Your task to perform on an android device: toggle sleep mode Image 0: 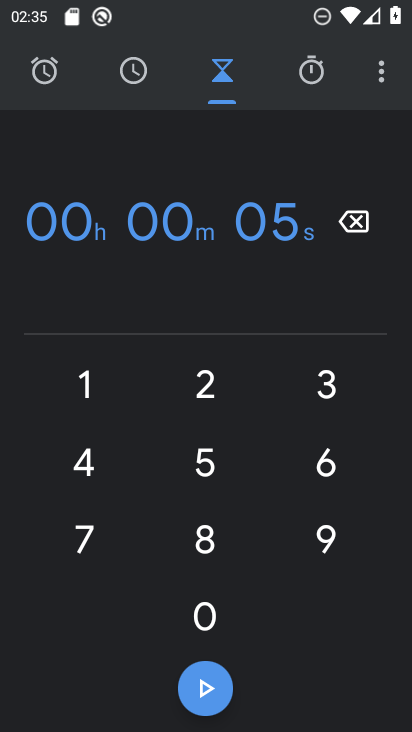
Step 0: press home button
Your task to perform on an android device: toggle sleep mode Image 1: 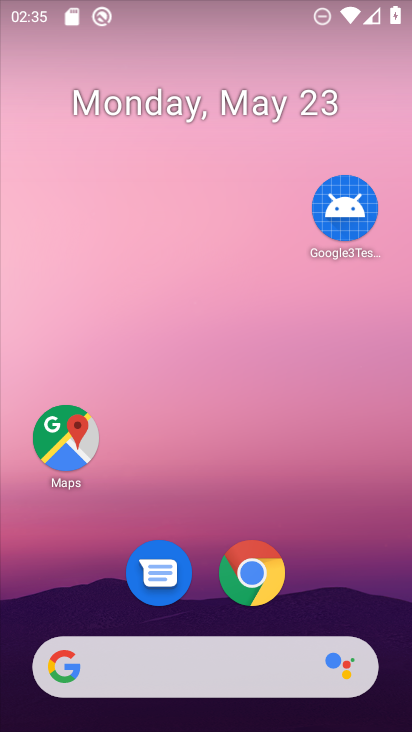
Step 1: click (273, 84)
Your task to perform on an android device: toggle sleep mode Image 2: 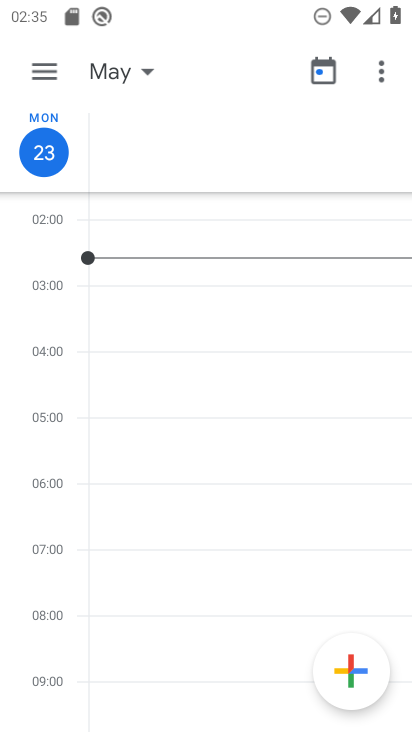
Step 2: press home button
Your task to perform on an android device: toggle sleep mode Image 3: 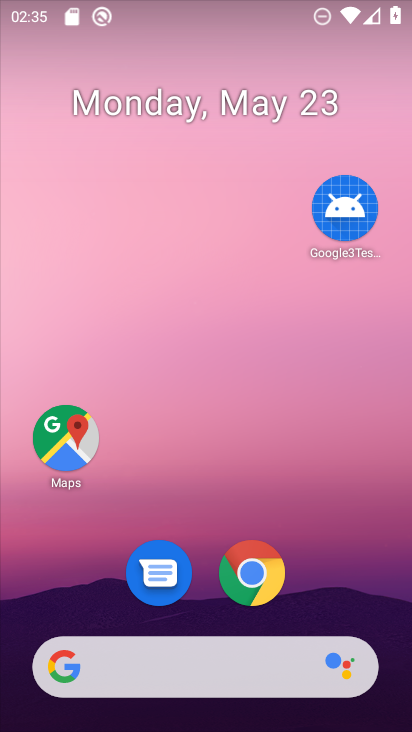
Step 3: drag from (335, 555) to (339, 189)
Your task to perform on an android device: toggle sleep mode Image 4: 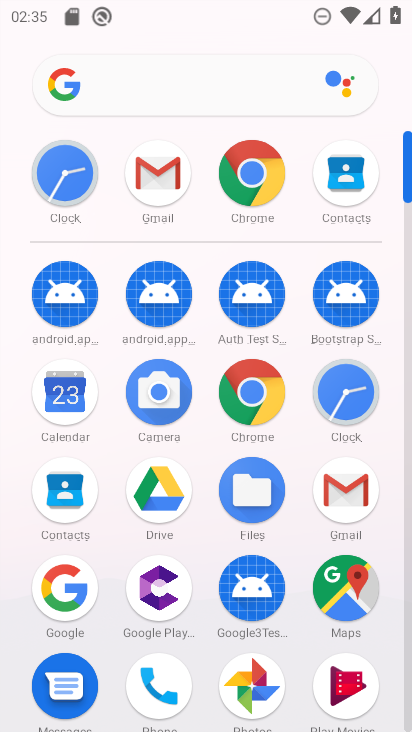
Step 4: drag from (298, 520) to (349, 76)
Your task to perform on an android device: toggle sleep mode Image 5: 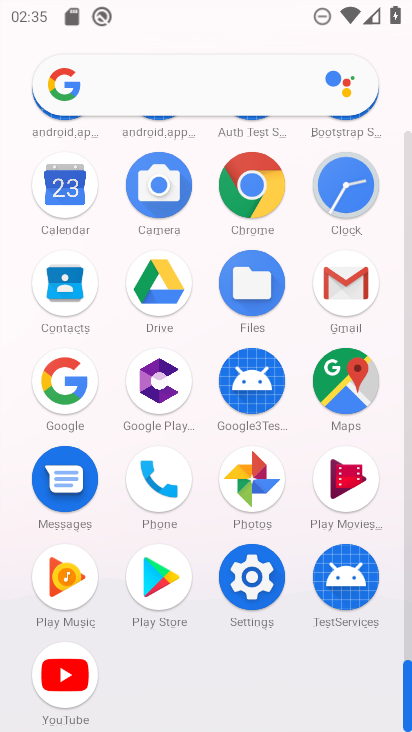
Step 5: click (254, 576)
Your task to perform on an android device: toggle sleep mode Image 6: 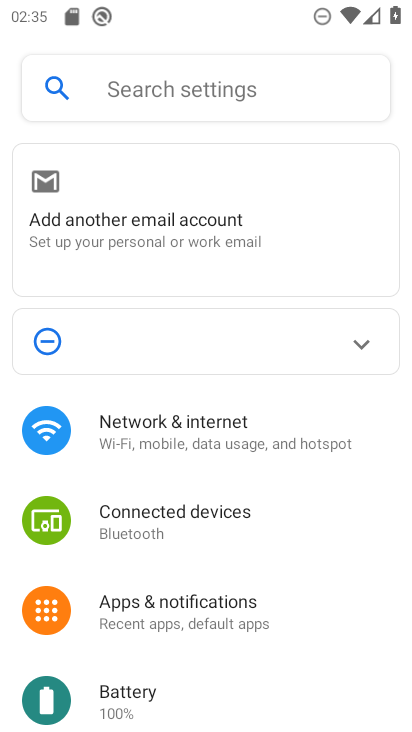
Step 6: drag from (283, 602) to (320, 105)
Your task to perform on an android device: toggle sleep mode Image 7: 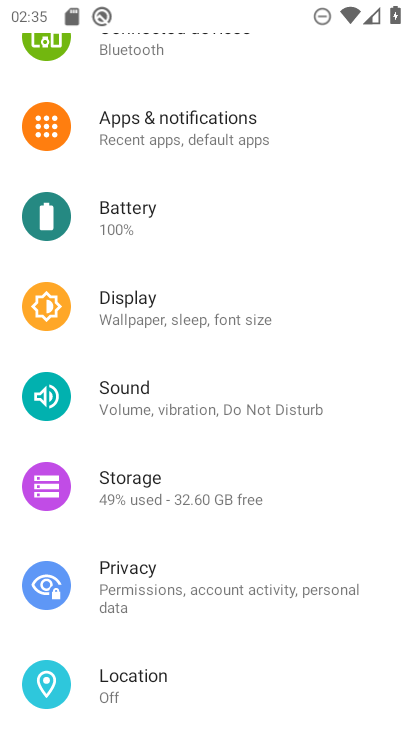
Step 7: click (181, 304)
Your task to perform on an android device: toggle sleep mode Image 8: 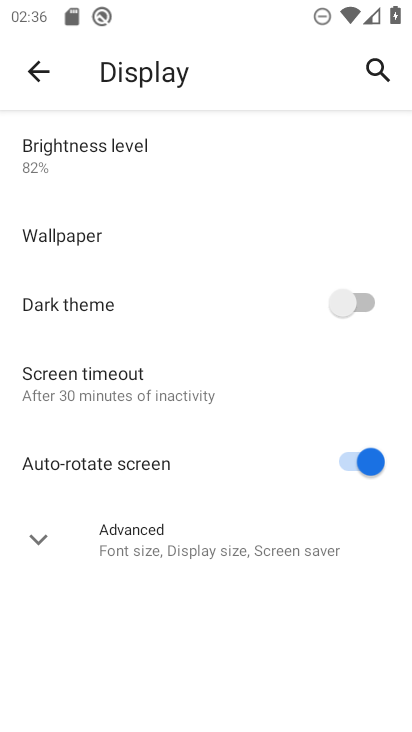
Step 8: click (203, 374)
Your task to perform on an android device: toggle sleep mode Image 9: 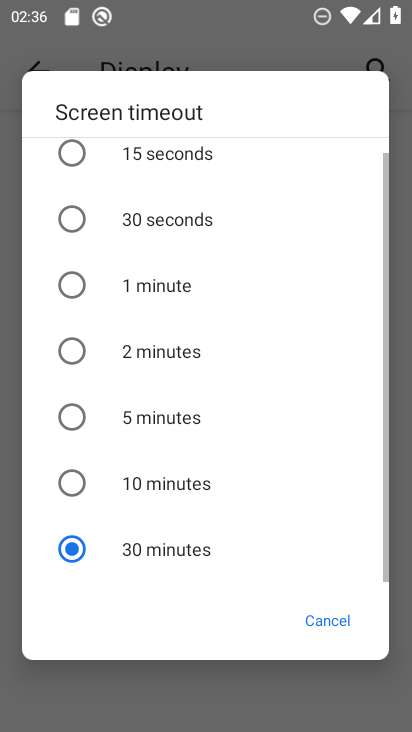
Step 9: click (156, 491)
Your task to perform on an android device: toggle sleep mode Image 10: 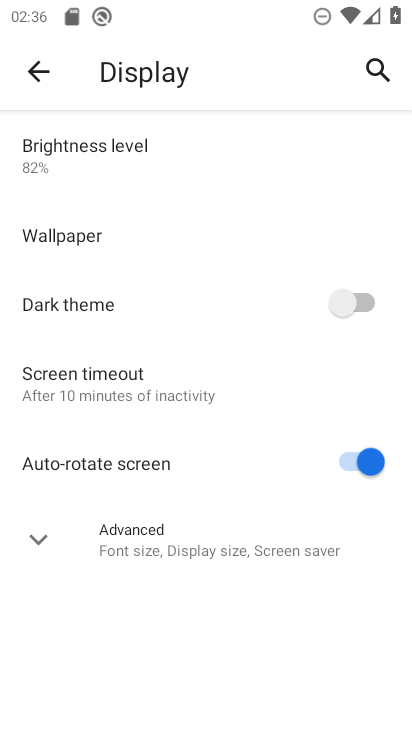
Step 10: task complete